Your task to perform on an android device: What is the recent news? Image 0: 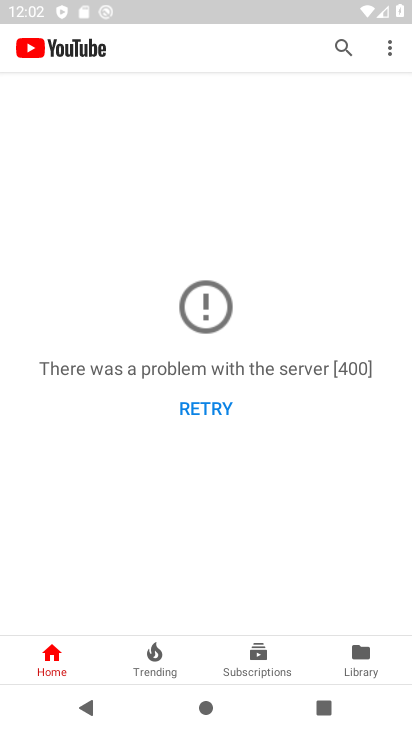
Step 0: press back button
Your task to perform on an android device: What is the recent news? Image 1: 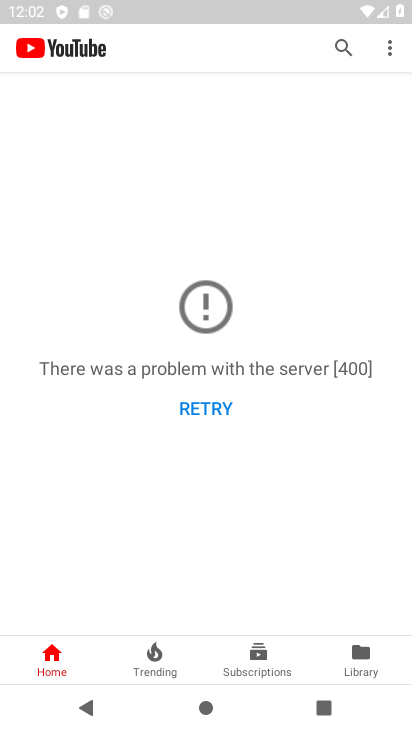
Step 1: task complete